Your task to perform on an android device: turn on showing notifications on the lock screen Image 0: 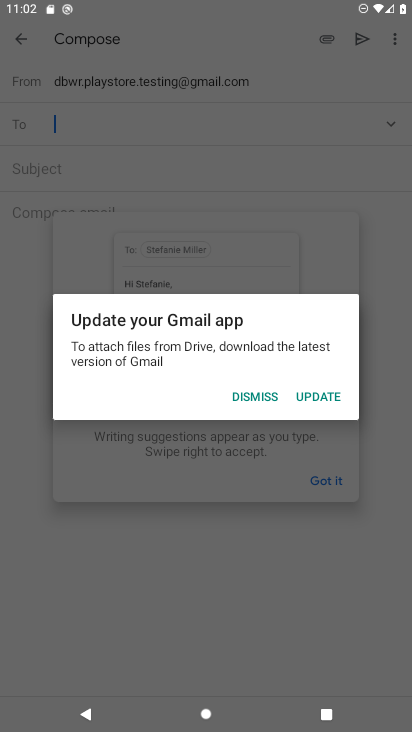
Step 0: press home button
Your task to perform on an android device: turn on showing notifications on the lock screen Image 1: 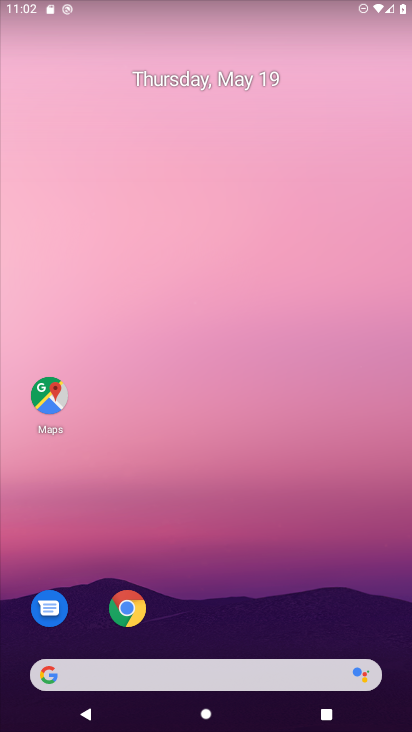
Step 1: drag from (303, 591) to (278, 16)
Your task to perform on an android device: turn on showing notifications on the lock screen Image 2: 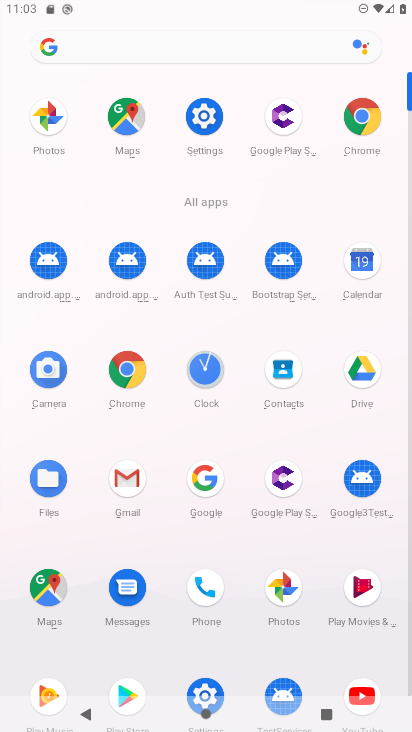
Step 2: click (192, 128)
Your task to perform on an android device: turn on showing notifications on the lock screen Image 3: 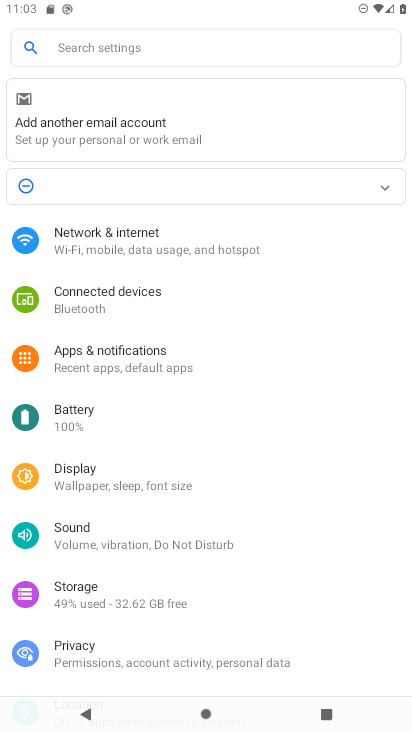
Step 3: click (114, 355)
Your task to perform on an android device: turn on showing notifications on the lock screen Image 4: 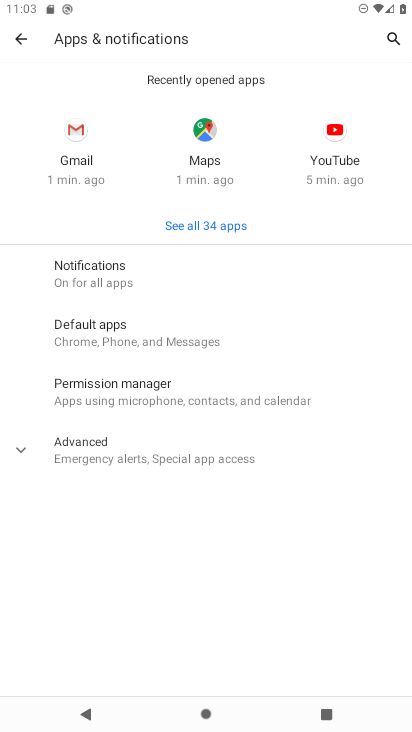
Step 4: click (137, 279)
Your task to perform on an android device: turn on showing notifications on the lock screen Image 5: 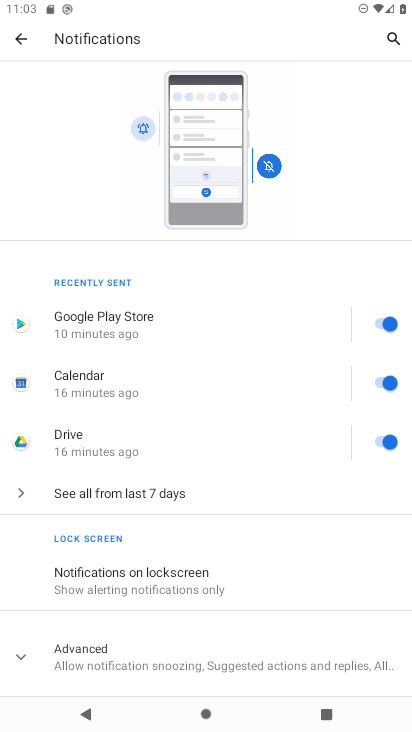
Step 5: click (139, 585)
Your task to perform on an android device: turn on showing notifications on the lock screen Image 6: 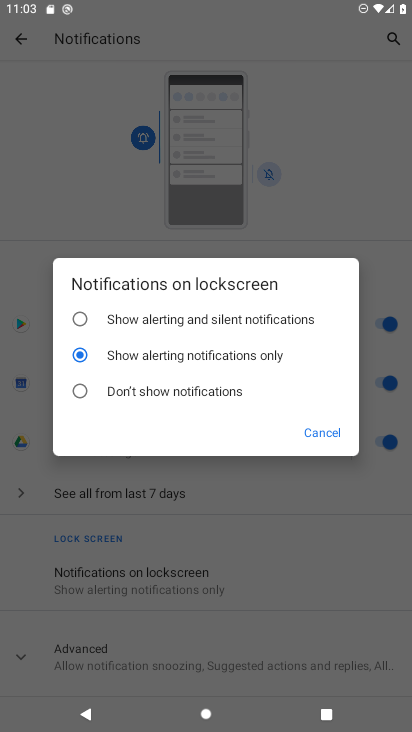
Step 6: click (167, 332)
Your task to perform on an android device: turn on showing notifications on the lock screen Image 7: 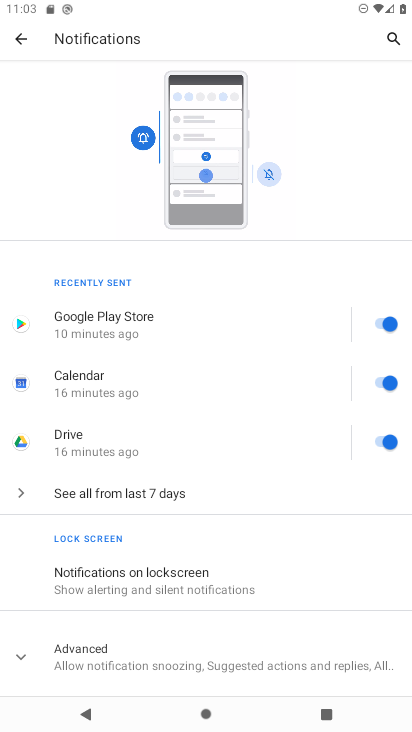
Step 7: task complete